Your task to perform on an android device: Open location settings Image 0: 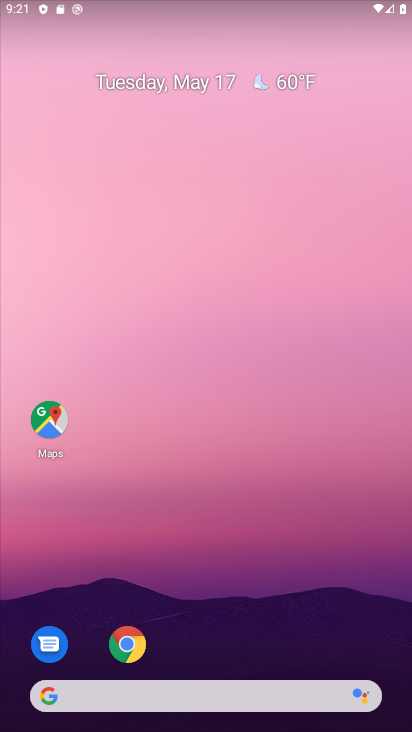
Step 0: drag from (224, 620) to (249, 249)
Your task to perform on an android device: Open location settings Image 1: 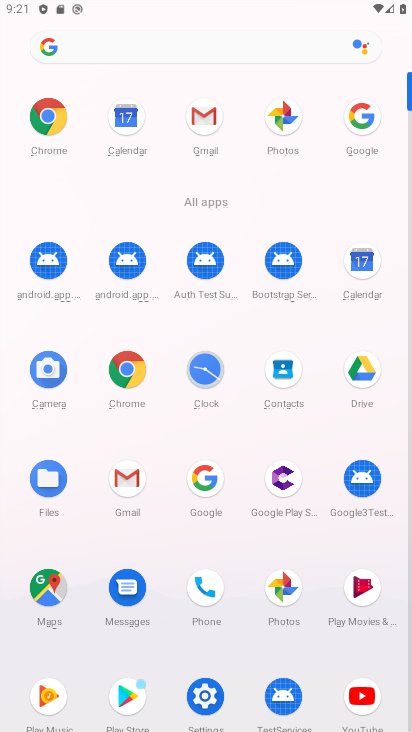
Step 1: click (205, 692)
Your task to perform on an android device: Open location settings Image 2: 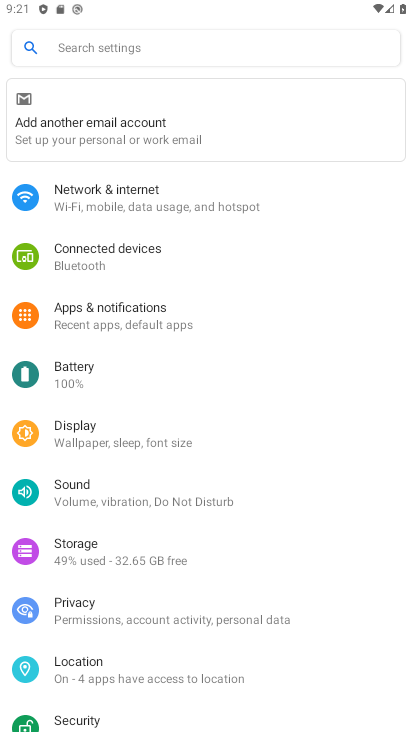
Step 2: click (113, 671)
Your task to perform on an android device: Open location settings Image 3: 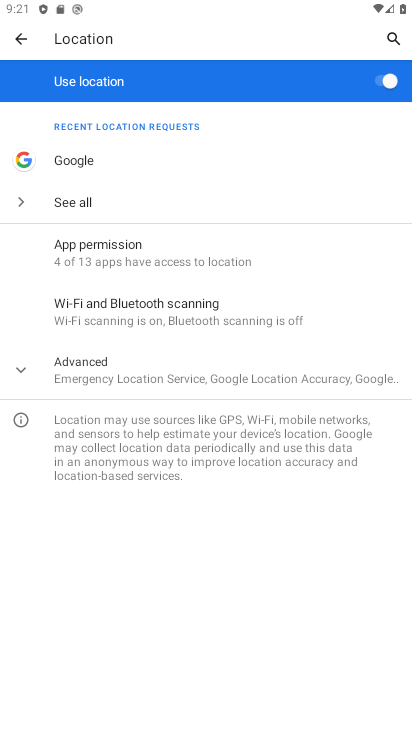
Step 3: task complete